Your task to perform on an android device: toggle notification dots Image 0: 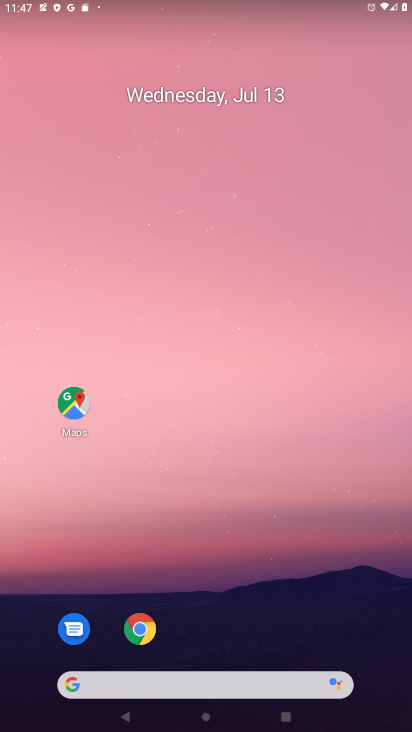
Step 0: drag from (292, 589) to (265, 284)
Your task to perform on an android device: toggle notification dots Image 1: 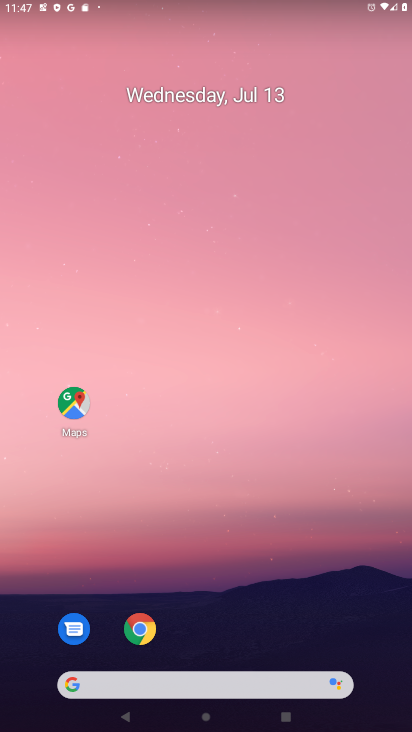
Step 1: drag from (264, 623) to (258, 155)
Your task to perform on an android device: toggle notification dots Image 2: 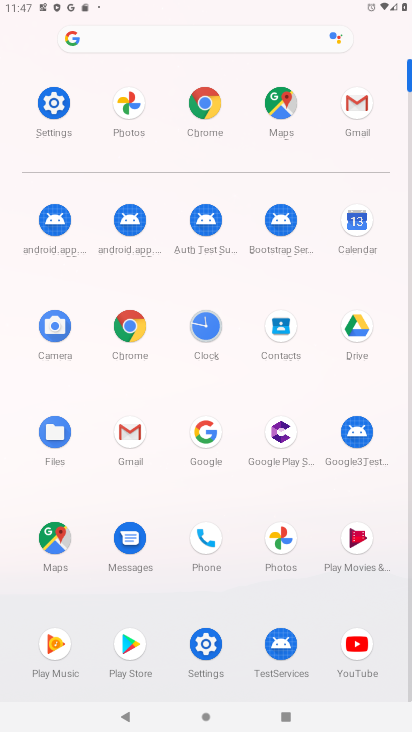
Step 2: click (65, 124)
Your task to perform on an android device: toggle notification dots Image 3: 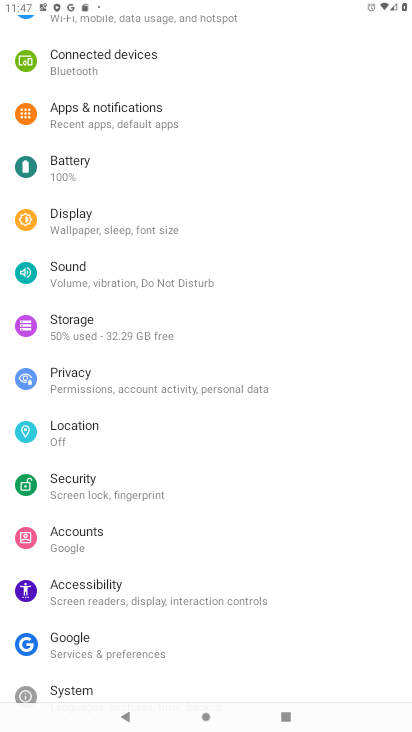
Step 3: click (150, 123)
Your task to perform on an android device: toggle notification dots Image 4: 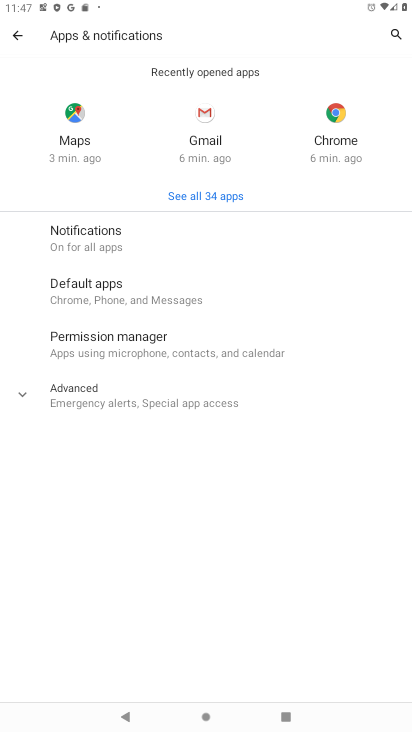
Step 4: click (140, 389)
Your task to perform on an android device: toggle notification dots Image 5: 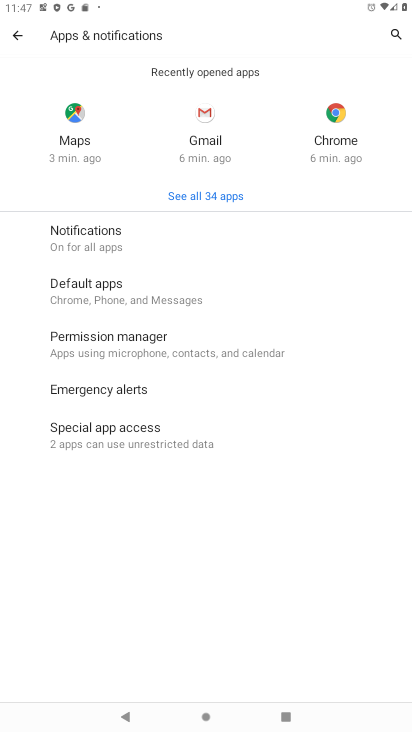
Step 5: click (109, 258)
Your task to perform on an android device: toggle notification dots Image 6: 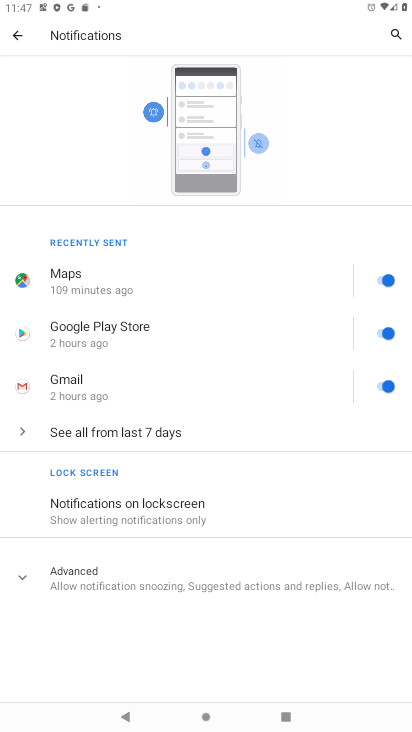
Step 6: click (205, 569)
Your task to perform on an android device: toggle notification dots Image 7: 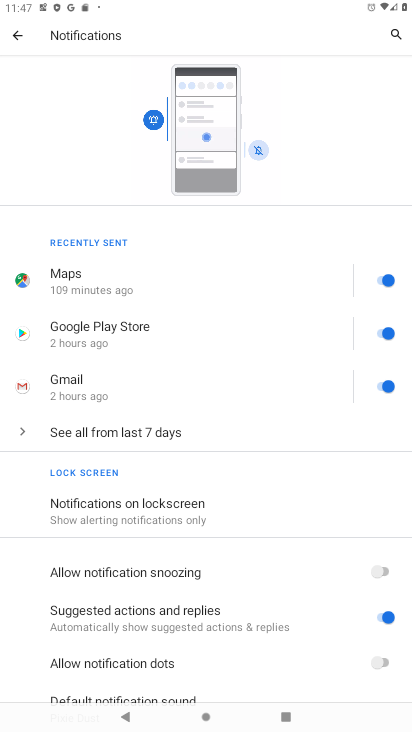
Step 7: drag from (273, 554) to (295, 438)
Your task to perform on an android device: toggle notification dots Image 8: 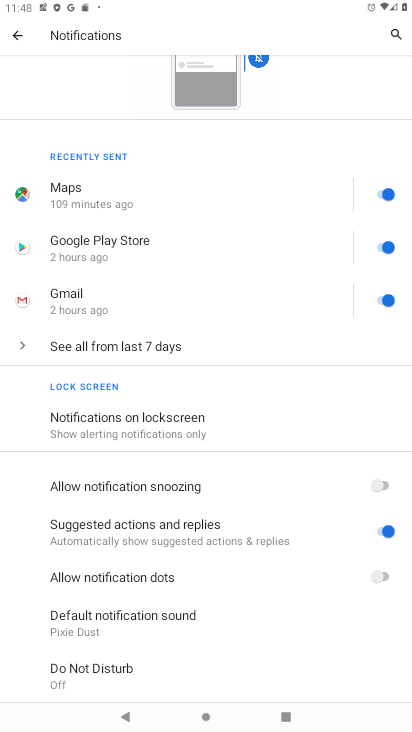
Step 8: click (375, 572)
Your task to perform on an android device: toggle notification dots Image 9: 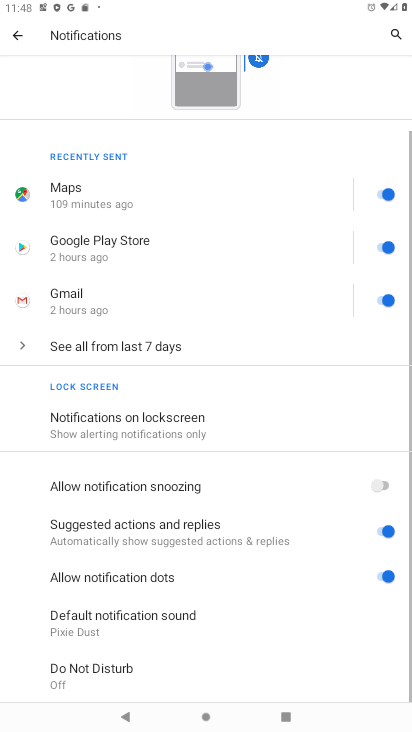
Step 9: task complete